Your task to perform on an android device: Show the shopping cart on walmart. Search for bose soundlink on walmart, select the first entry, add it to the cart, then select checkout. Image 0: 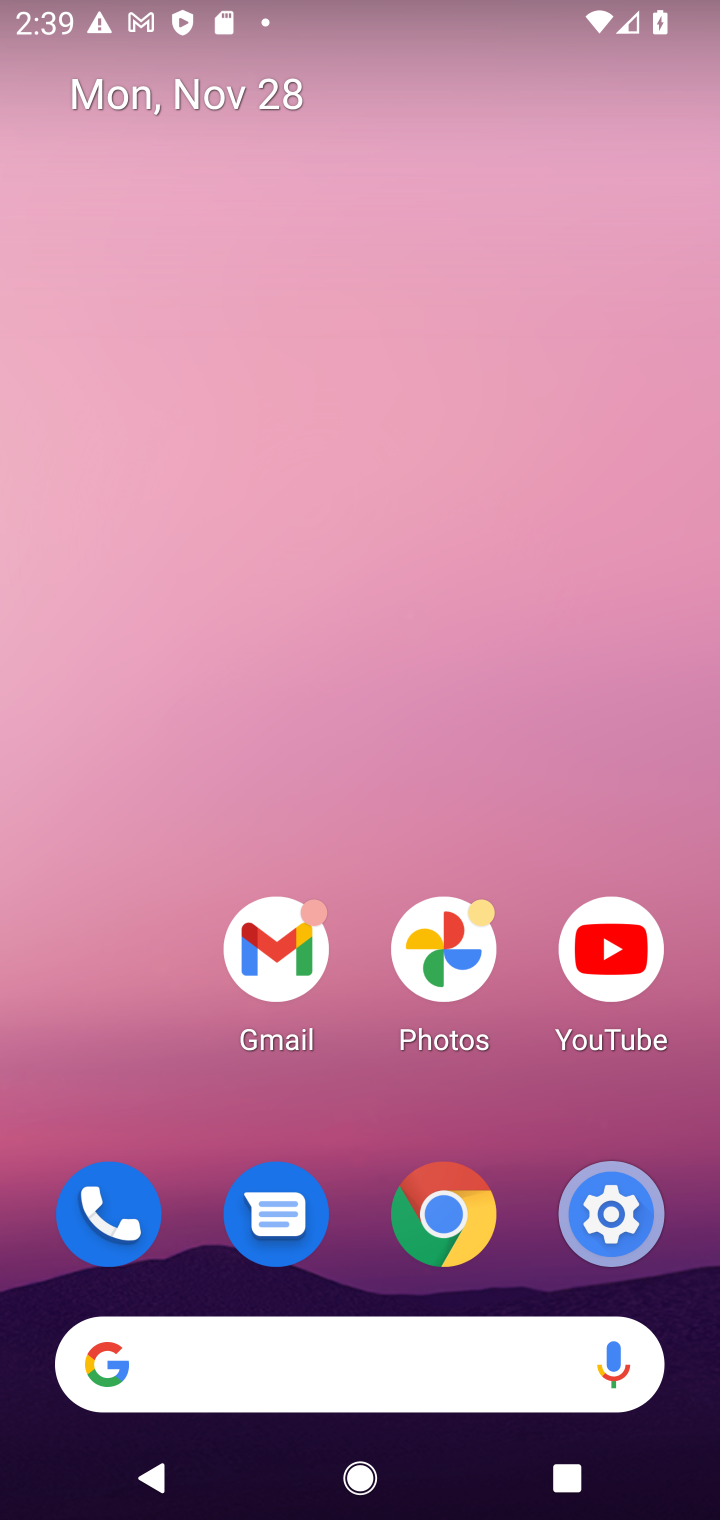
Step 0: click (393, 1402)
Your task to perform on an android device: Show the shopping cart on walmart. Search for bose soundlink on walmart, select the first entry, add it to the cart, then select checkout. Image 1: 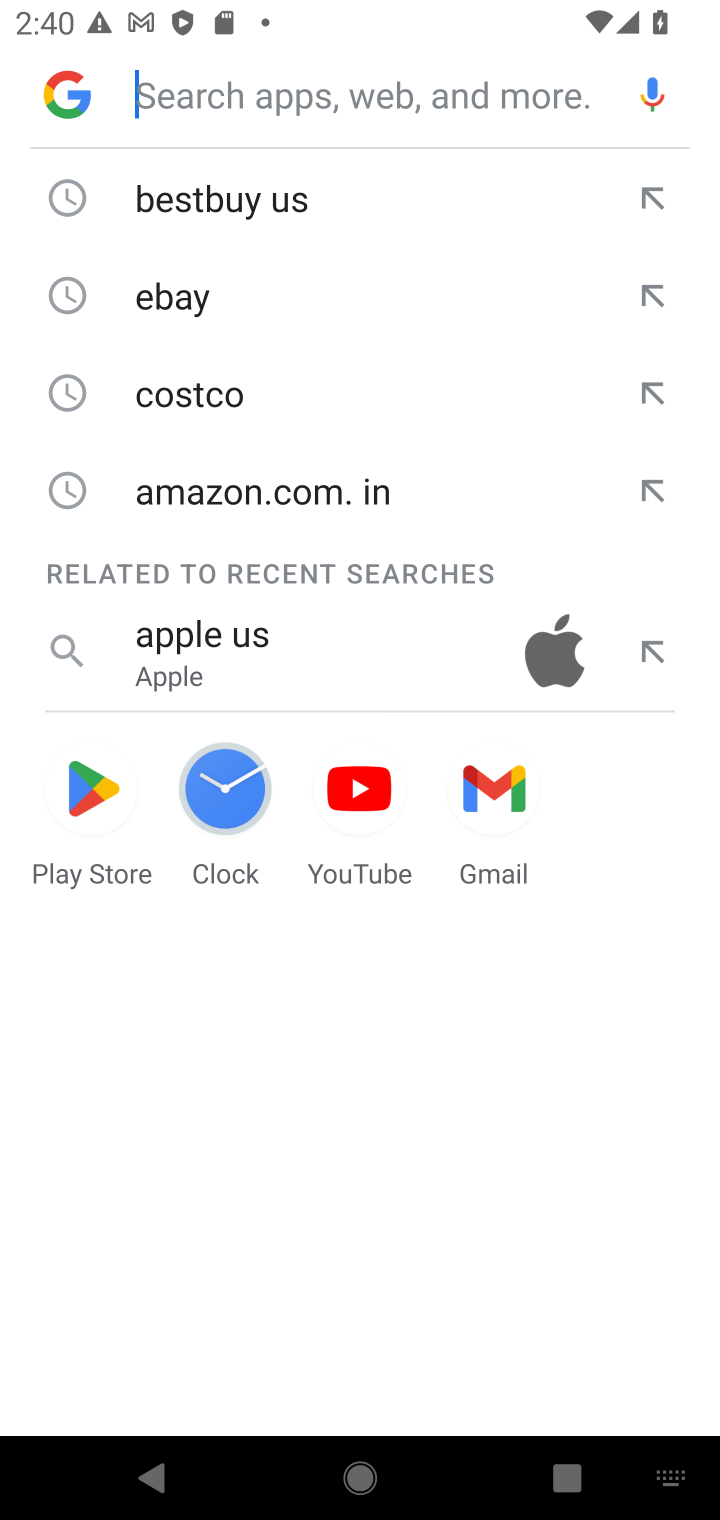
Step 1: type "walmart"
Your task to perform on an android device: Show the shopping cart on walmart. Search for bose soundlink on walmart, select the first entry, add it to the cart, then select checkout. Image 2: 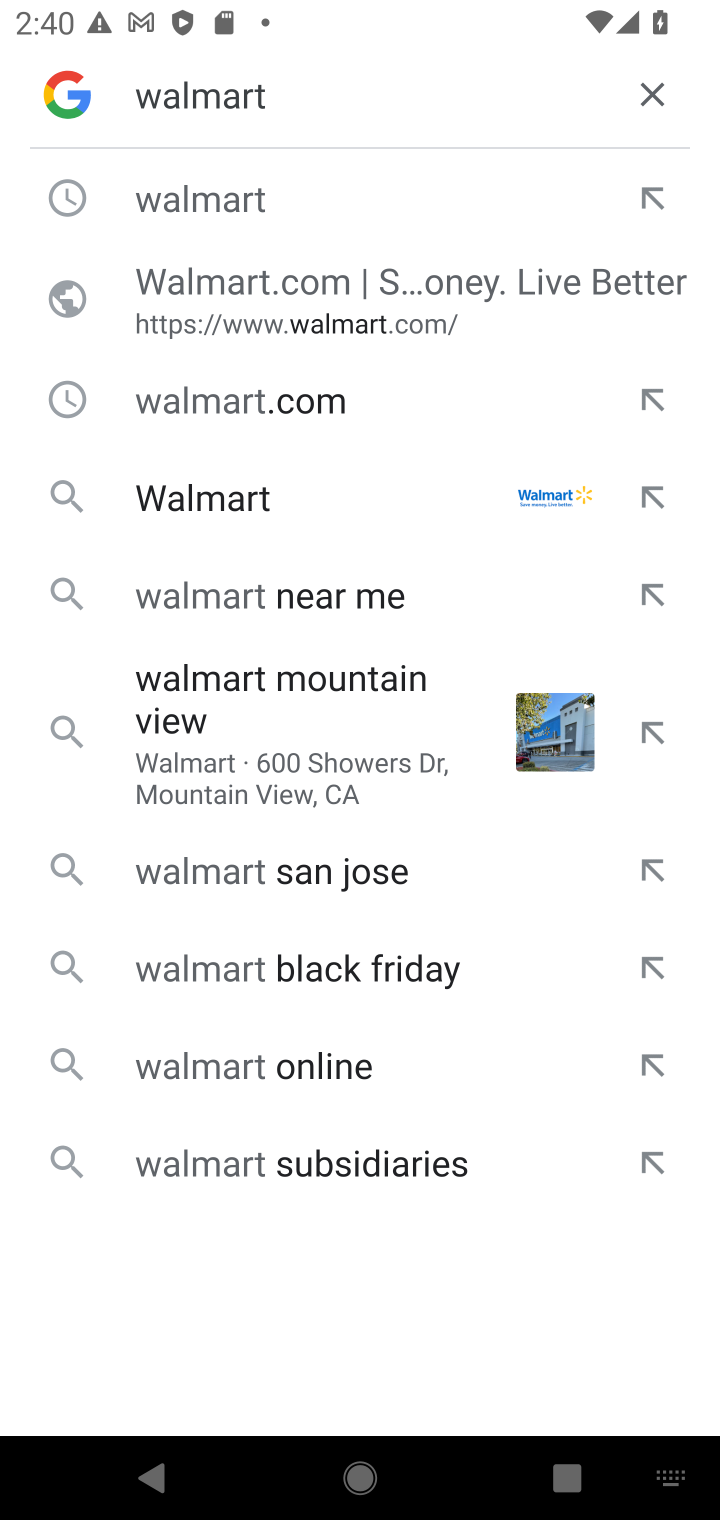
Step 2: click (190, 188)
Your task to perform on an android device: Show the shopping cart on walmart. Search for bose soundlink on walmart, select the first entry, add it to the cart, then select checkout. Image 3: 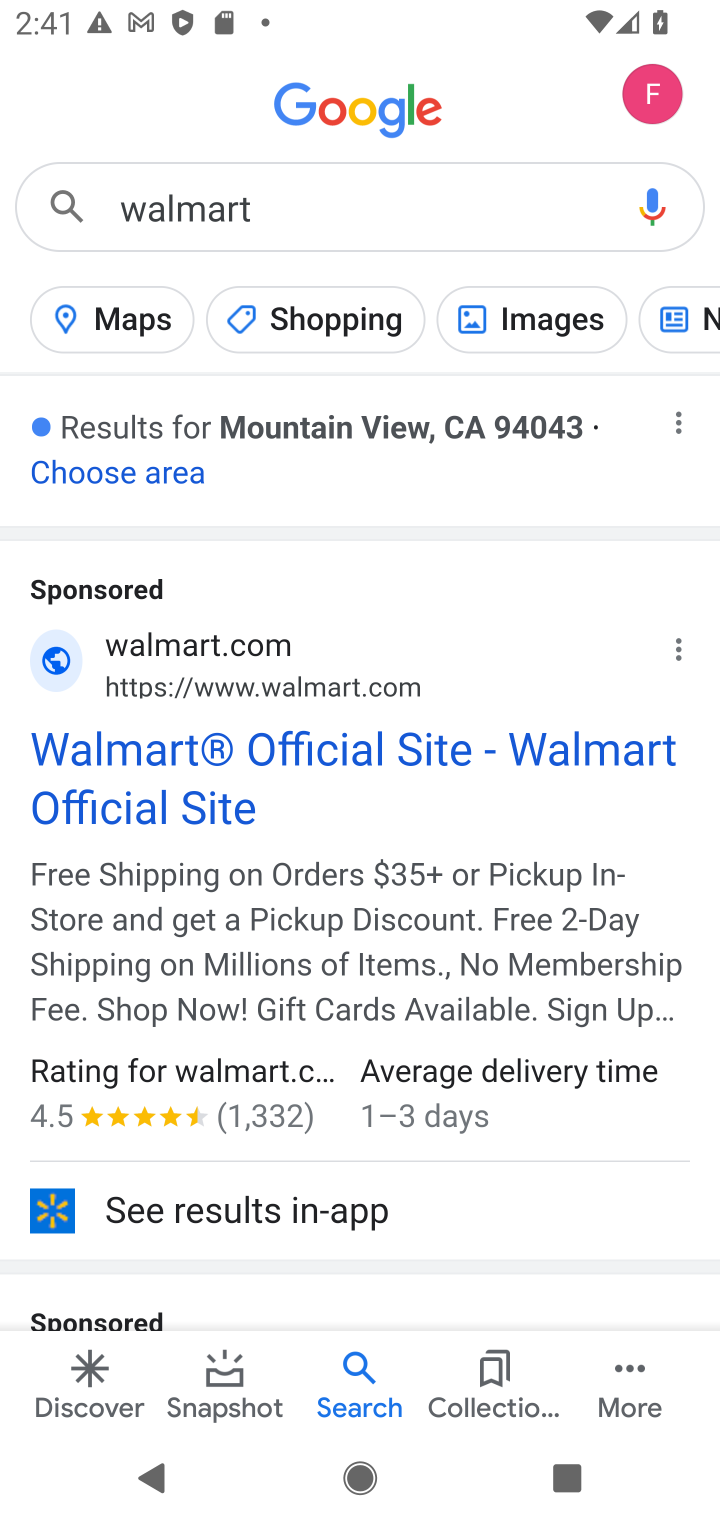
Step 3: task complete